Your task to perform on an android device: Go to internet settings Image 0: 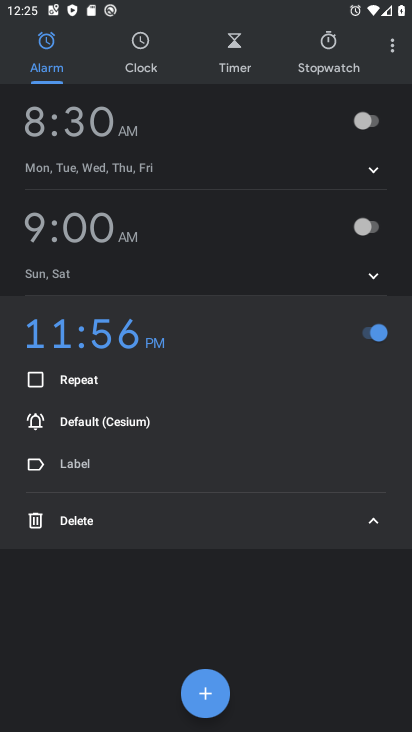
Step 0: press home button
Your task to perform on an android device: Go to internet settings Image 1: 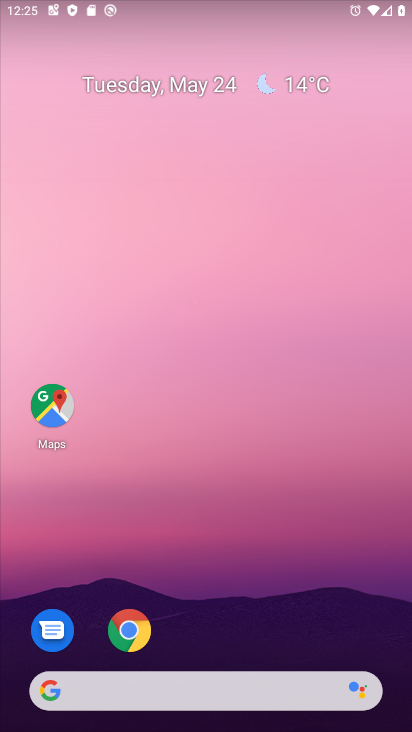
Step 1: drag from (354, 608) to (360, 122)
Your task to perform on an android device: Go to internet settings Image 2: 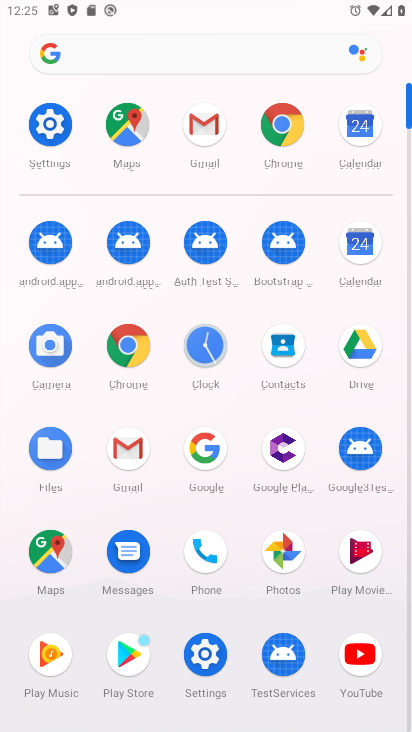
Step 2: click (200, 669)
Your task to perform on an android device: Go to internet settings Image 3: 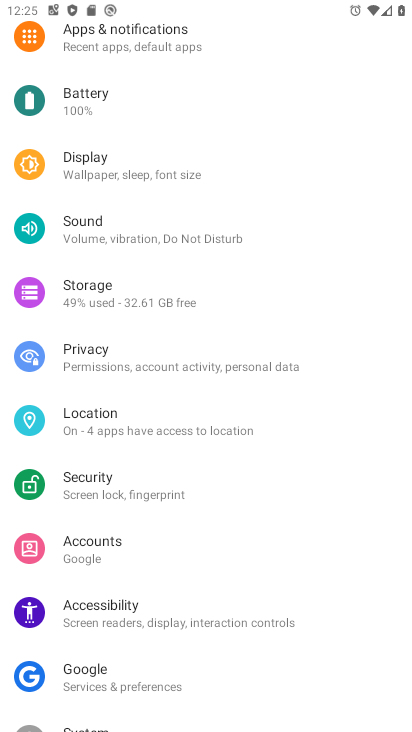
Step 3: drag from (279, 199) to (275, 635)
Your task to perform on an android device: Go to internet settings Image 4: 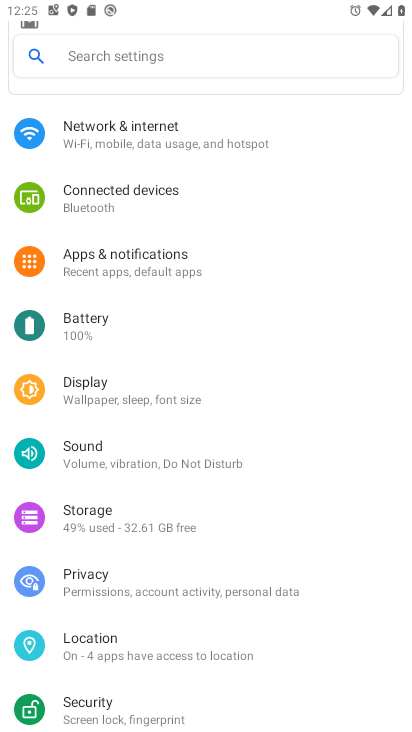
Step 4: click (162, 127)
Your task to perform on an android device: Go to internet settings Image 5: 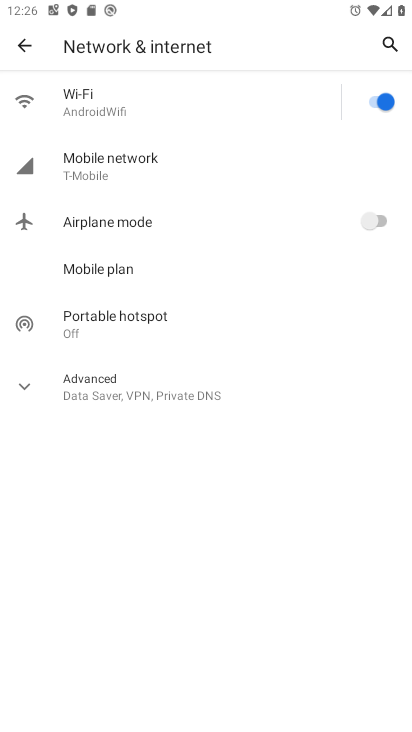
Step 5: task complete